Your task to perform on an android device: set the timer Image 0: 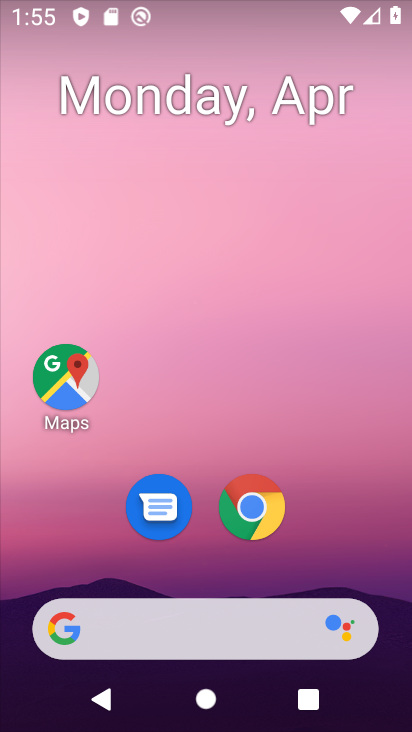
Step 0: drag from (385, 602) to (355, 23)
Your task to perform on an android device: set the timer Image 1: 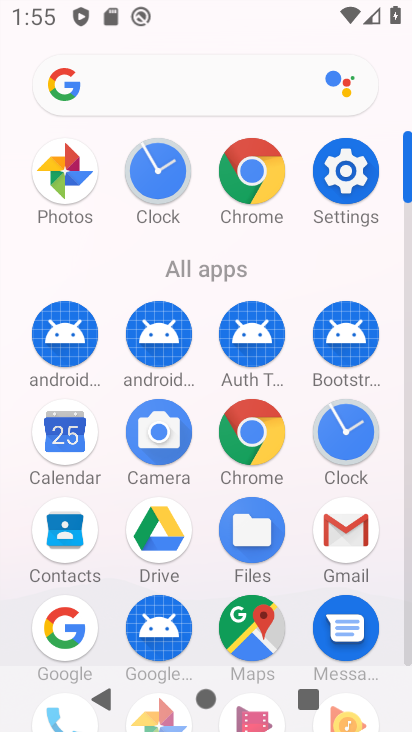
Step 1: click (408, 657)
Your task to perform on an android device: set the timer Image 2: 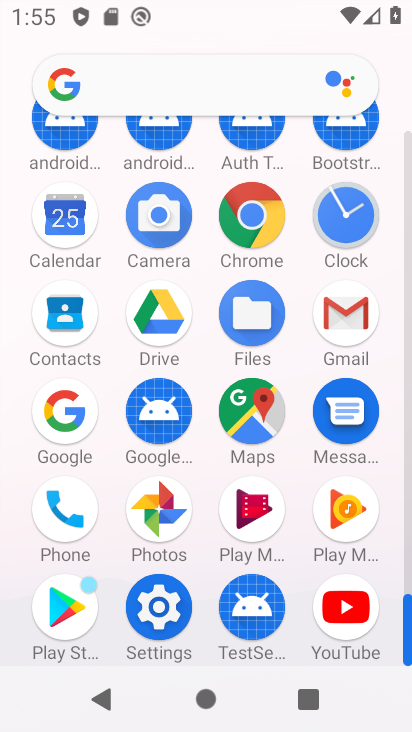
Step 2: click (348, 216)
Your task to perform on an android device: set the timer Image 3: 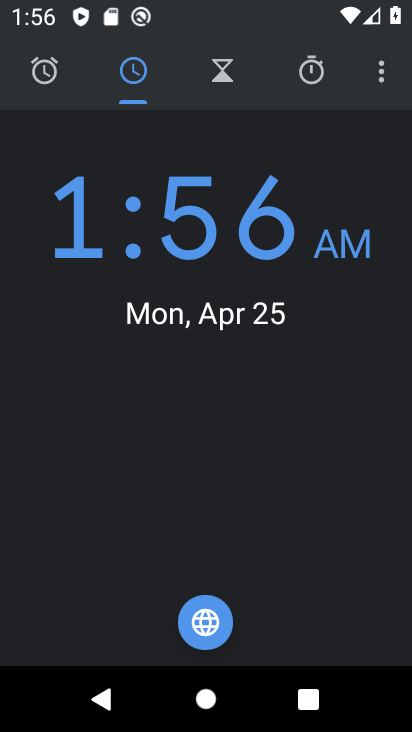
Step 3: click (219, 74)
Your task to perform on an android device: set the timer Image 4: 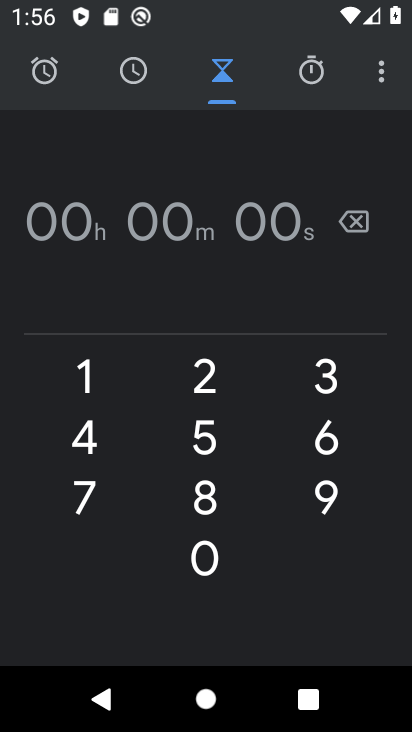
Step 4: click (90, 385)
Your task to perform on an android device: set the timer Image 5: 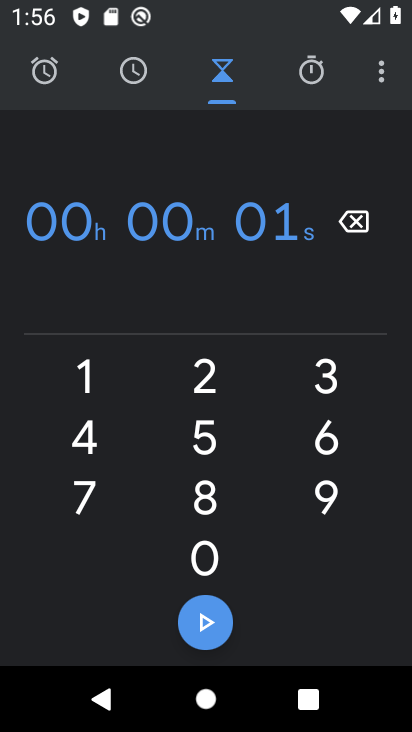
Step 5: click (212, 563)
Your task to perform on an android device: set the timer Image 6: 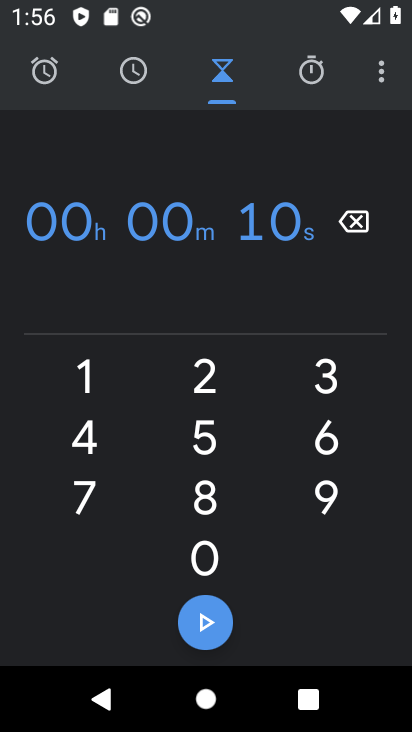
Step 6: click (324, 382)
Your task to perform on an android device: set the timer Image 7: 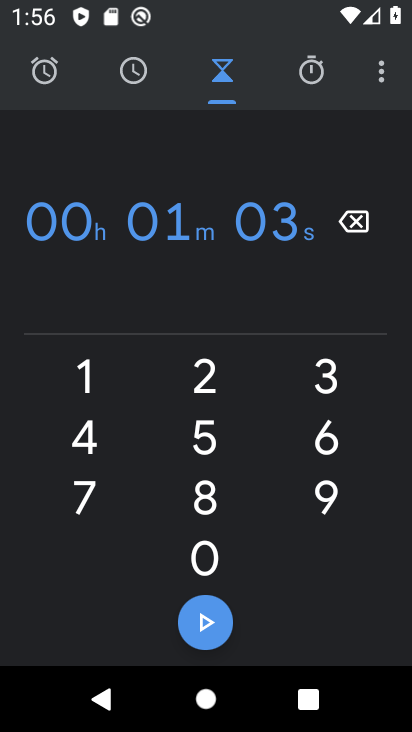
Step 7: click (206, 551)
Your task to perform on an android device: set the timer Image 8: 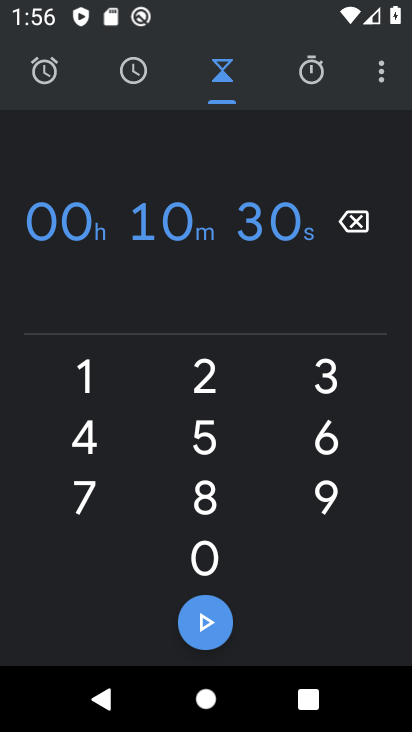
Step 8: click (206, 551)
Your task to perform on an android device: set the timer Image 9: 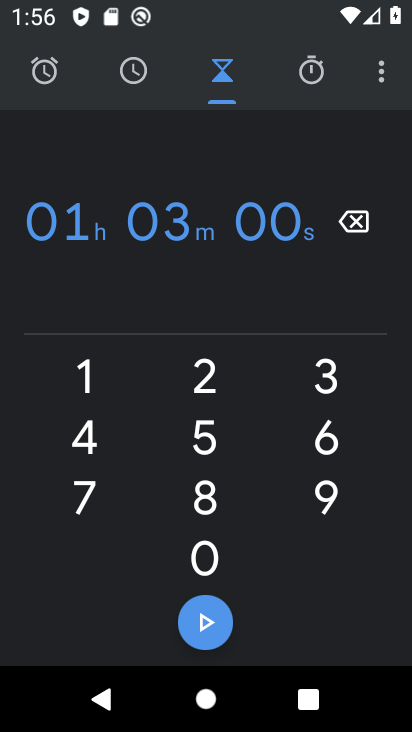
Step 9: task complete